Your task to perform on an android device: change the clock display to analog Image 0: 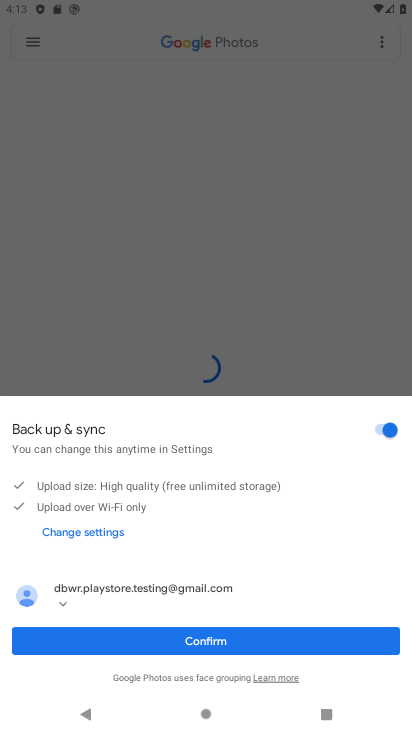
Step 0: press back button
Your task to perform on an android device: change the clock display to analog Image 1: 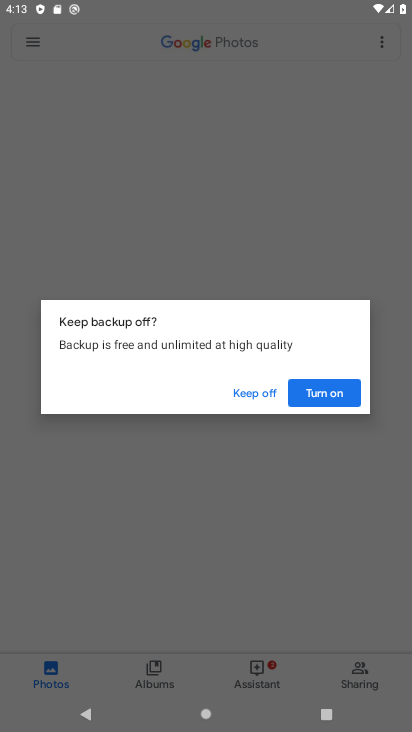
Step 1: press home button
Your task to perform on an android device: change the clock display to analog Image 2: 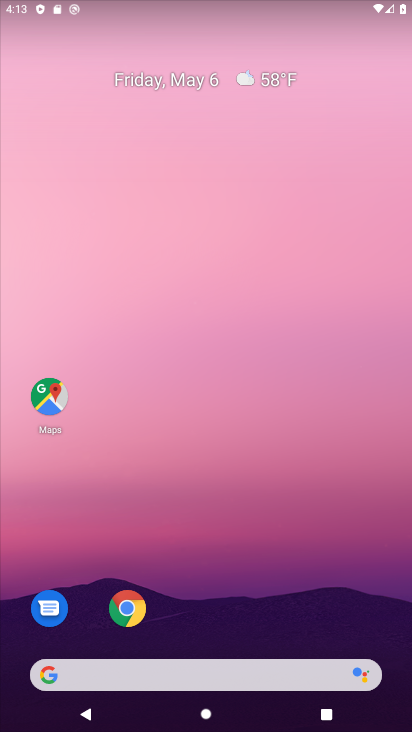
Step 2: drag from (250, 385) to (289, 165)
Your task to perform on an android device: change the clock display to analog Image 3: 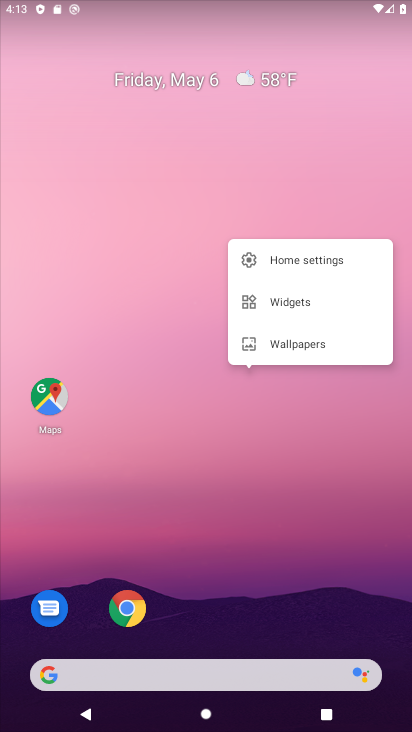
Step 3: drag from (245, 470) to (307, 144)
Your task to perform on an android device: change the clock display to analog Image 4: 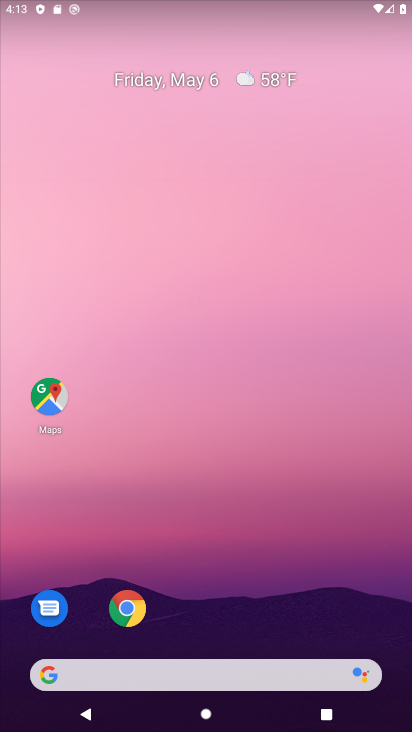
Step 4: drag from (156, 655) to (279, 20)
Your task to perform on an android device: change the clock display to analog Image 5: 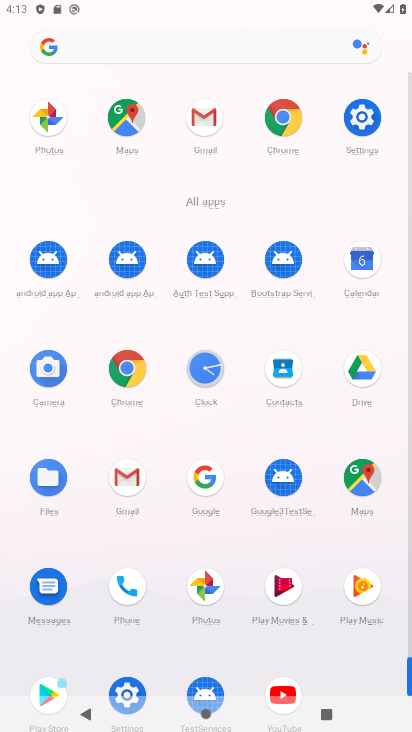
Step 5: click (213, 373)
Your task to perform on an android device: change the clock display to analog Image 6: 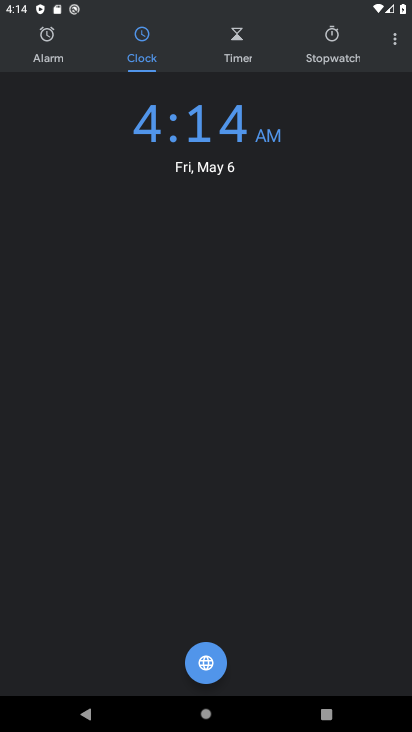
Step 6: click (394, 49)
Your task to perform on an android device: change the clock display to analog Image 7: 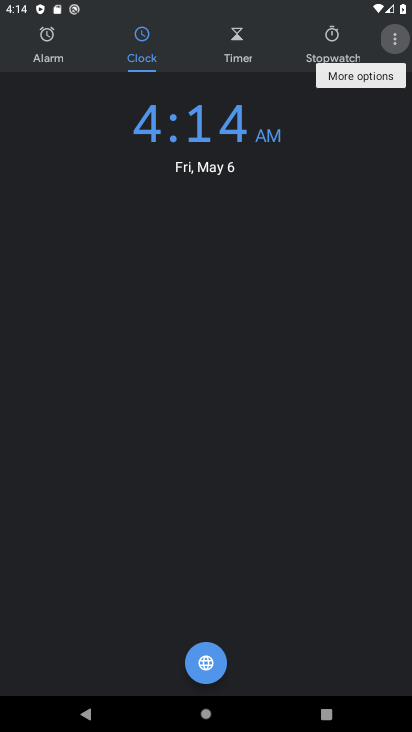
Step 7: click (395, 34)
Your task to perform on an android device: change the clock display to analog Image 8: 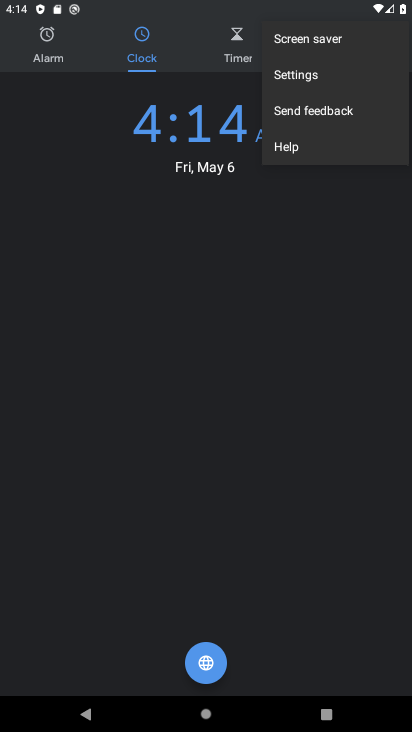
Step 8: click (359, 71)
Your task to perform on an android device: change the clock display to analog Image 9: 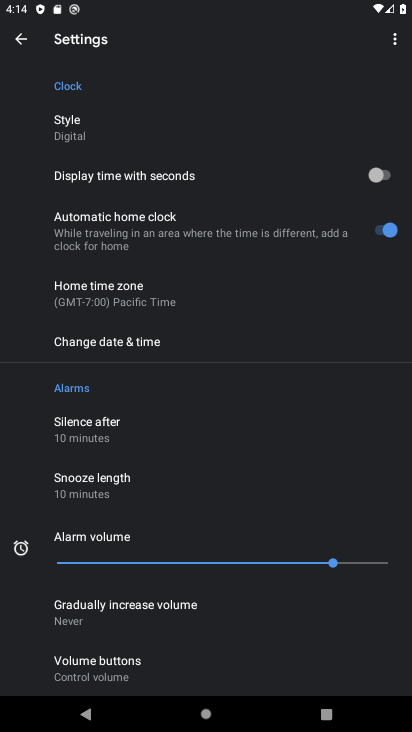
Step 9: click (158, 133)
Your task to perform on an android device: change the clock display to analog Image 10: 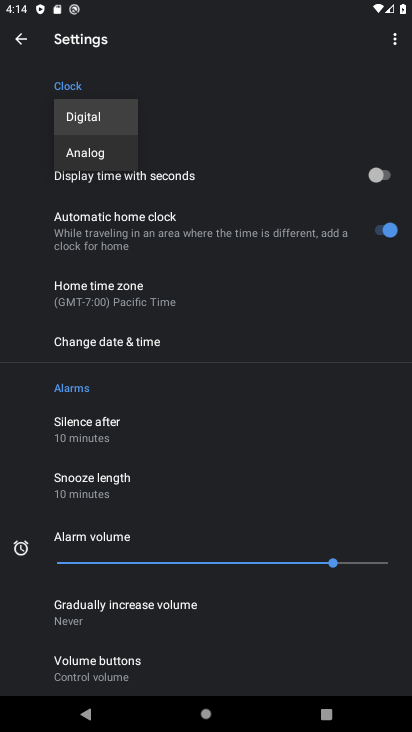
Step 10: click (87, 151)
Your task to perform on an android device: change the clock display to analog Image 11: 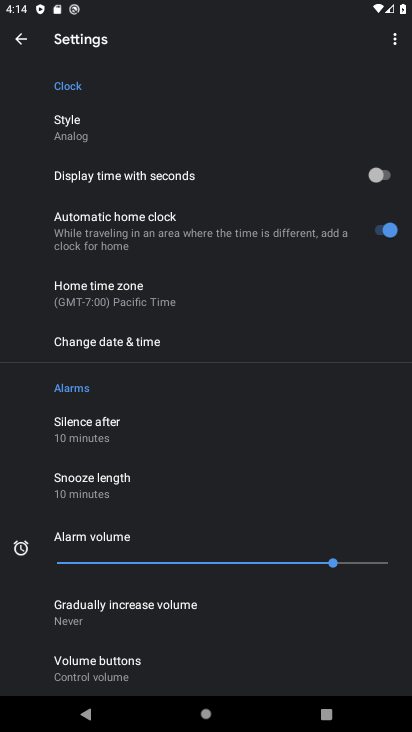
Step 11: task complete